Your task to perform on an android device: Open battery settings Image 0: 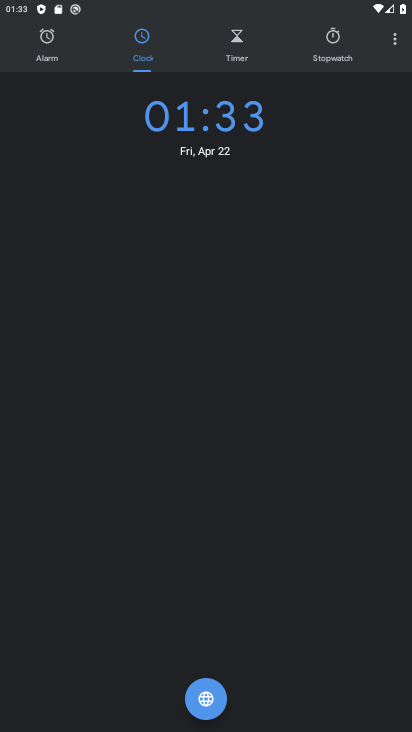
Step 0: press back button
Your task to perform on an android device: Open battery settings Image 1: 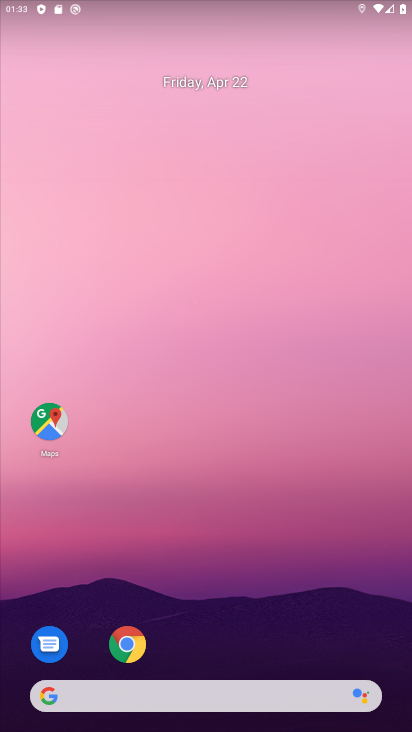
Step 1: drag from (371, 606) to (333, 133)
Your task to perform on an android device: Open battery settings Image 2: 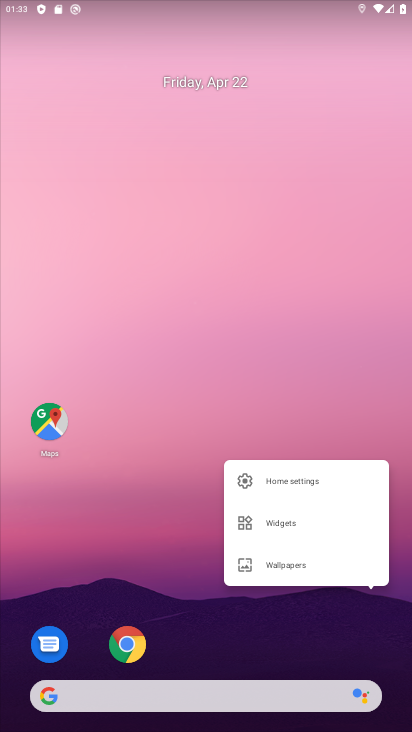
Step 2: drag from (217, 632) to (192, 219)
Your task to perform on an android device: Open battery settings Image 3: 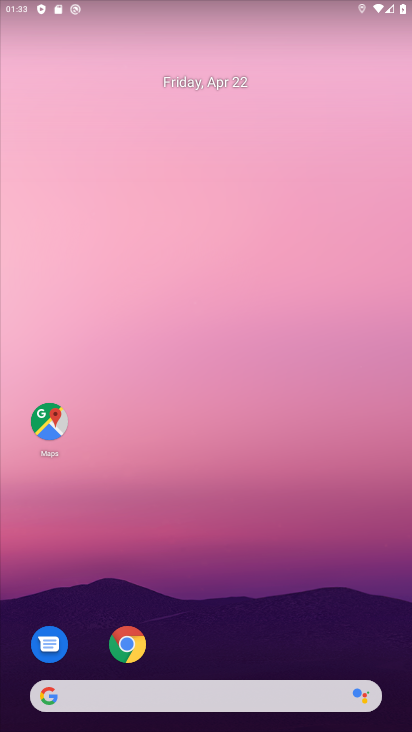
Step 3: drag from (402, 659) to (336, 149)
Your task to perform on an android device: Open battery settings Image 4: 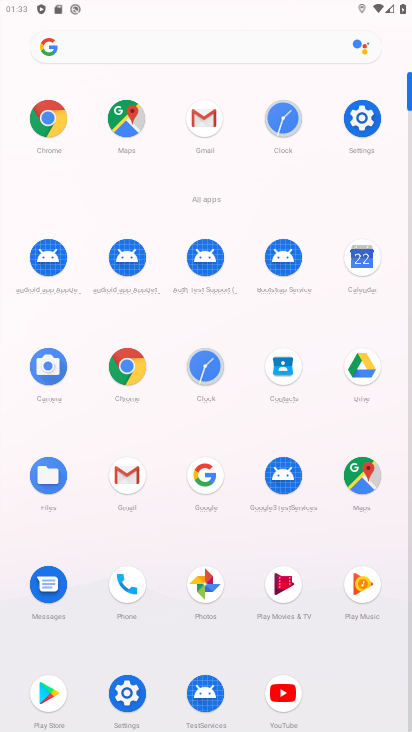
Step 4: click (368, 123)
Your task to perform on an android device: Open battery settings Image 5: 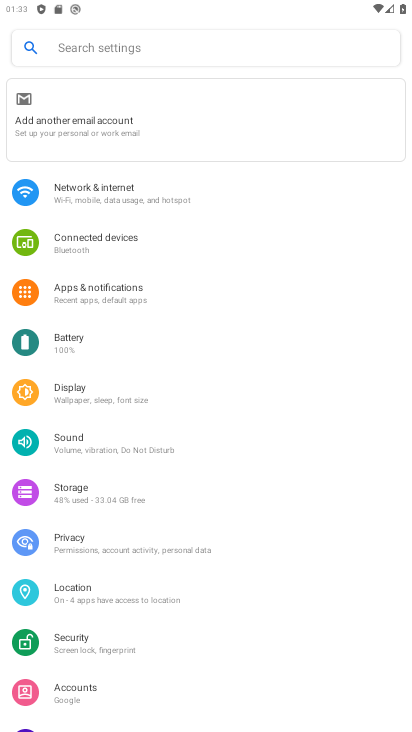
Step 5: click (195, 333)
Your task to perform on an android device: Open battery settings Image 6: 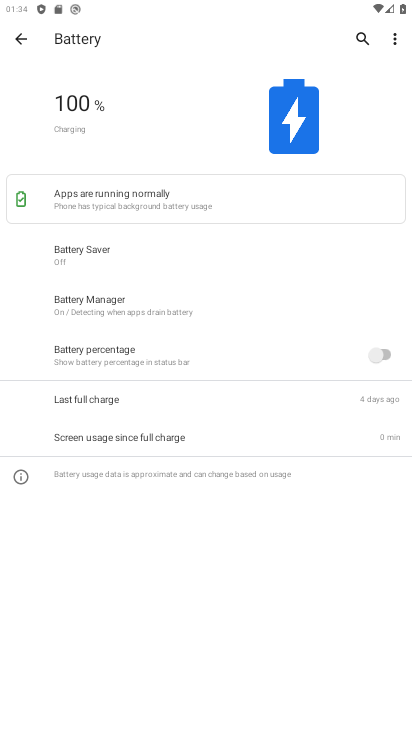
Step 6: task complete